Your task to perform on an android device: Go to notification settings Image 0: 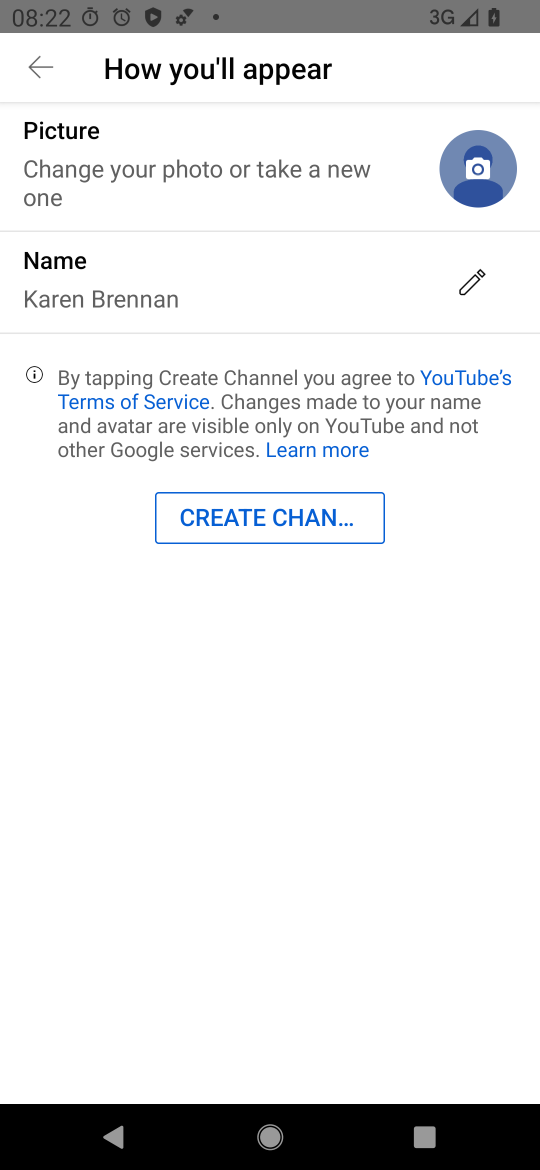
Step 0: press home button
Your task to perform on an android device: Go to notification settings Image 1: 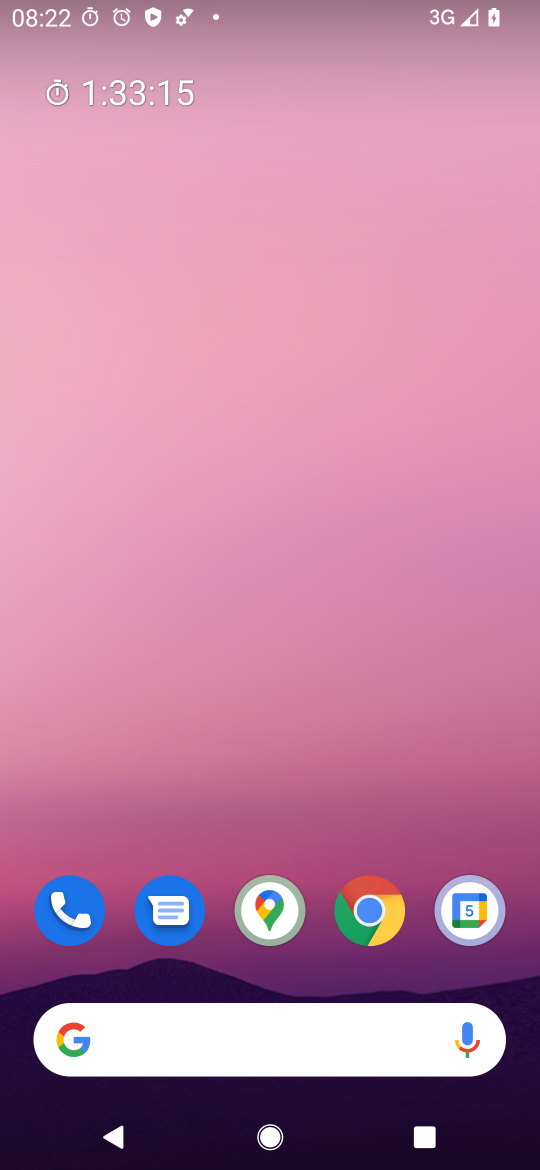
Step 1: drag from (266, 1004) to (265, 12)
Your task to perform on an android device: Go to notification settings Image 2: 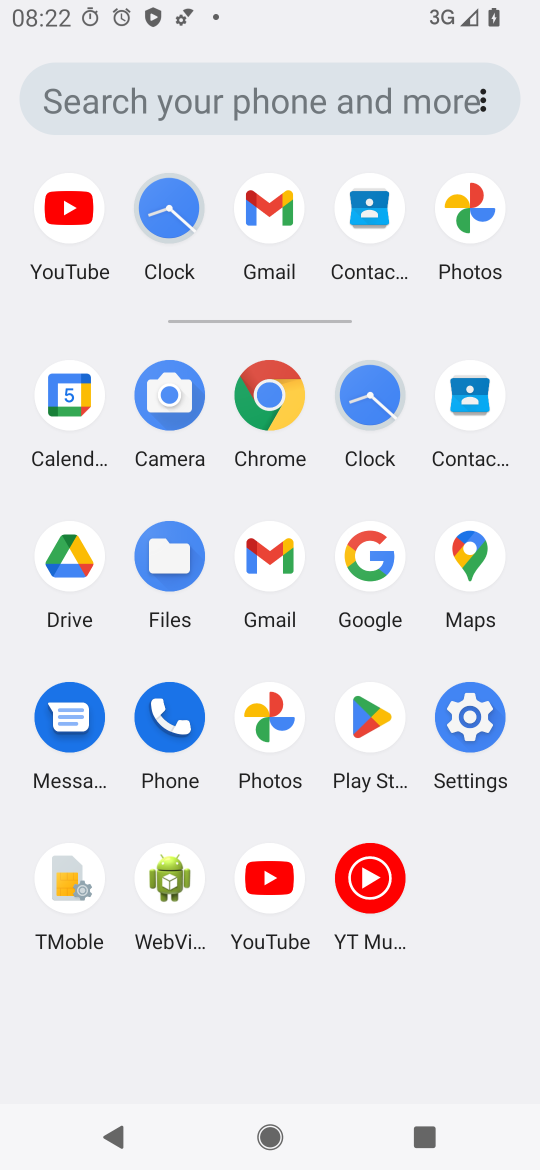
Step 2: click (487, 702)
Your task to perform on an android device: Go to notification settings Image 3: 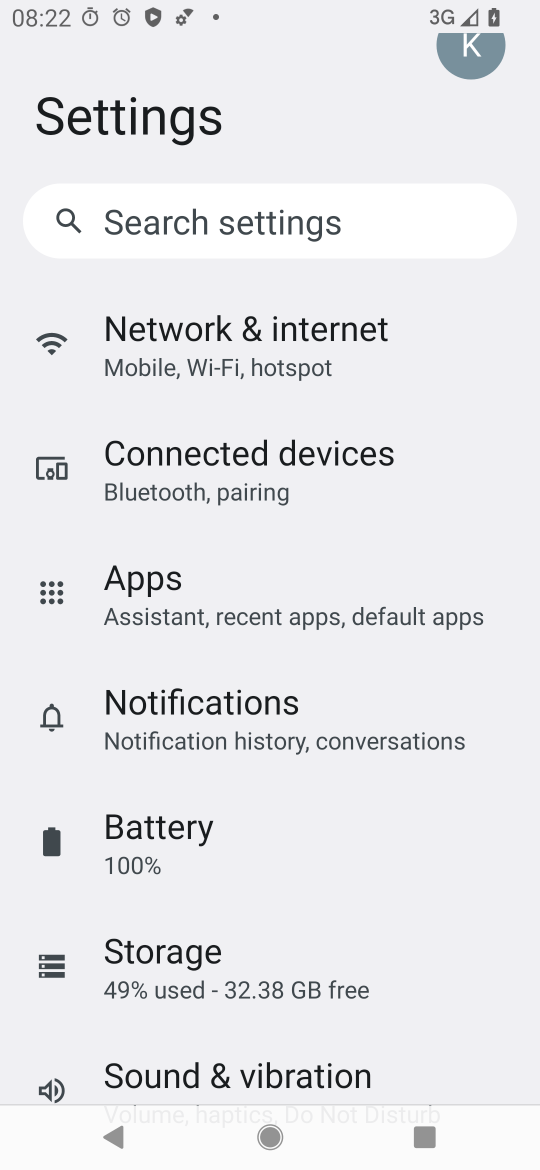
Step 3: click (205, 742)
Your task to perform on an android device: Go to notification settings Image 4: 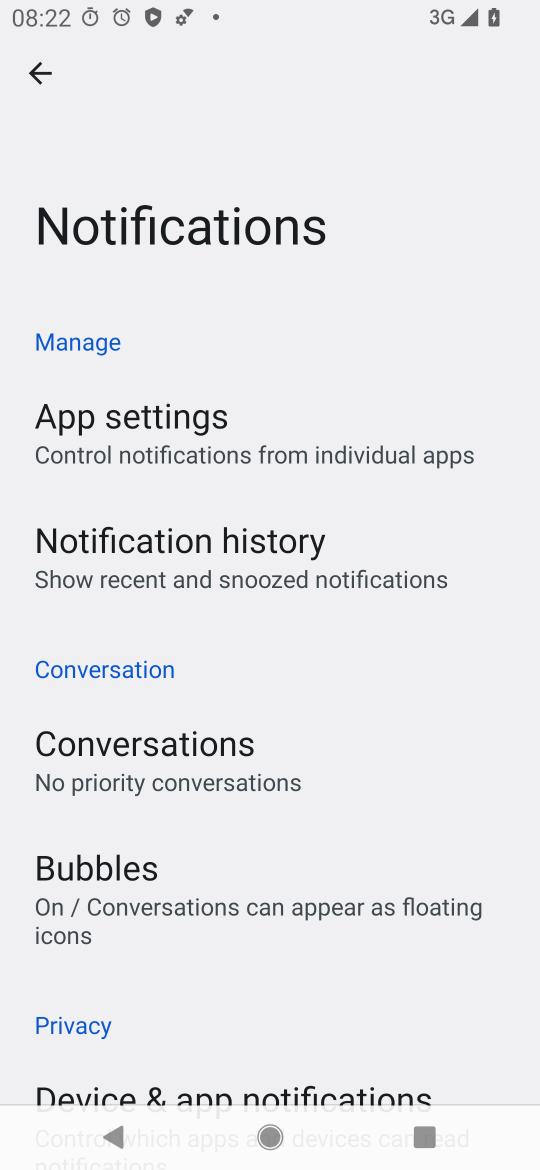
Step 4: task complete